Your task to perform on an android device: toggle translation in the chrome app Image 0: 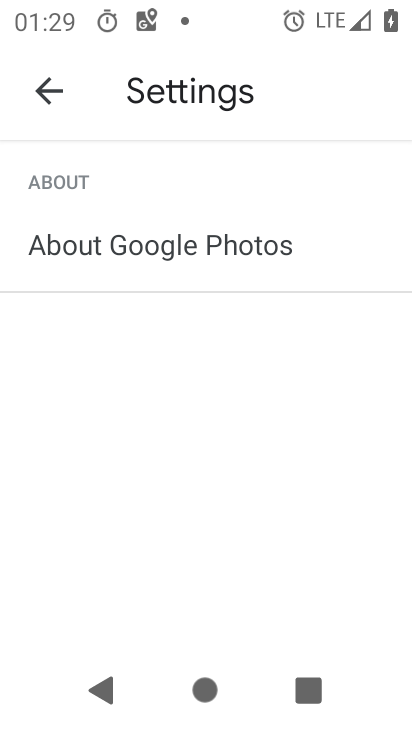
Step 0: press home button
Your task to perform on an android device: toggle translation in the chrome app Image 1: 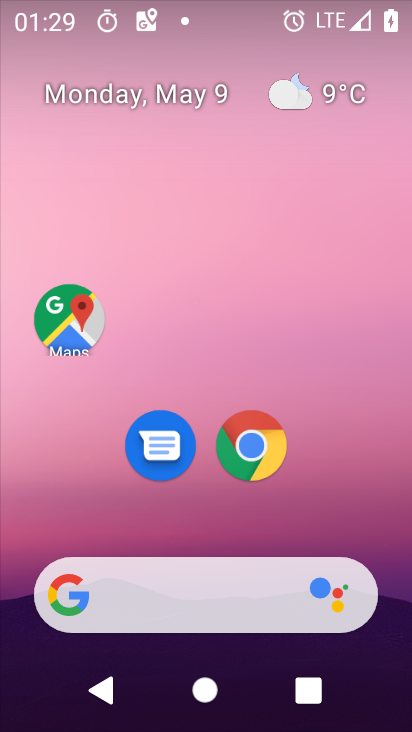
Step 1: click (257, 448)
Your task to perform on an android device: toggle translation in the chrome app Image 2: 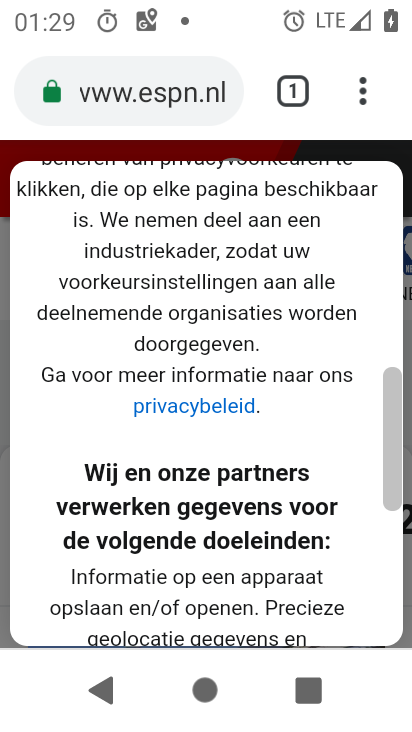
Step 2: drag from (365, 94) to (118, 478)
Your task to perform on an android device: toggle translation in the chrome app Image 3: 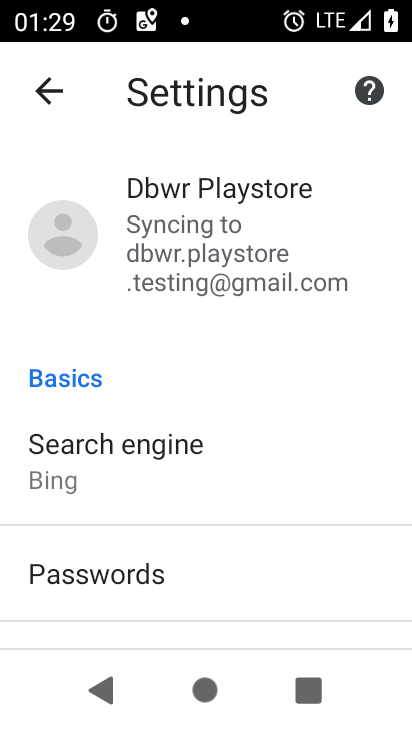
Step 3: drag from (211, 592) to (230, 209)
Your task to perform on an android device: toggle translation in the chrome app Image 4: 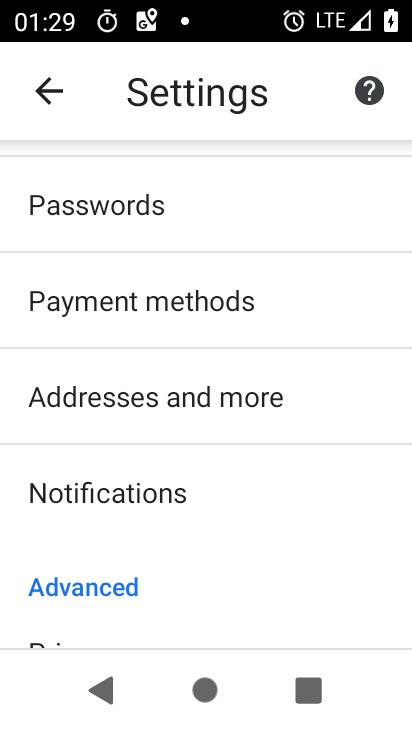
Step 4: drag from (252, 525) to (252, 184)
Your task to perform on an android device: toggle translation in the chrome app Image 5: 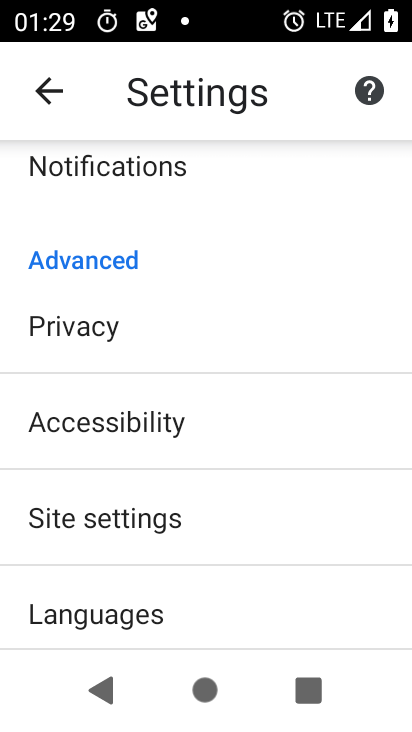
Step 5: click (143, 613)
Your task to perform on an android device: toggle translation in the chrome app Image 6: 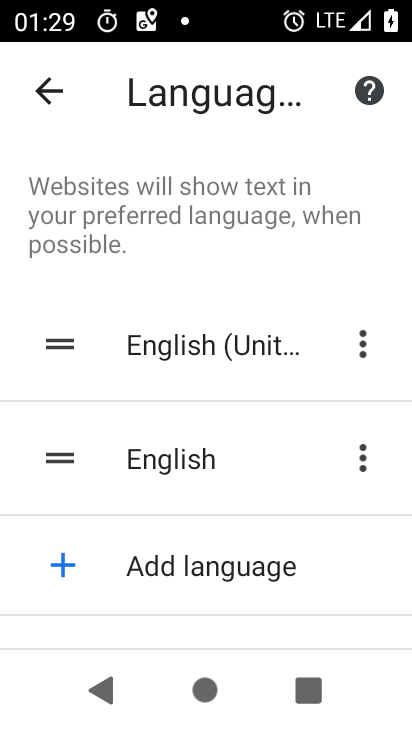
Step 6: drag from (211, 589) to (207, 242)
Your task to perform on an android device: toggle translation in the chrome app Image 7: 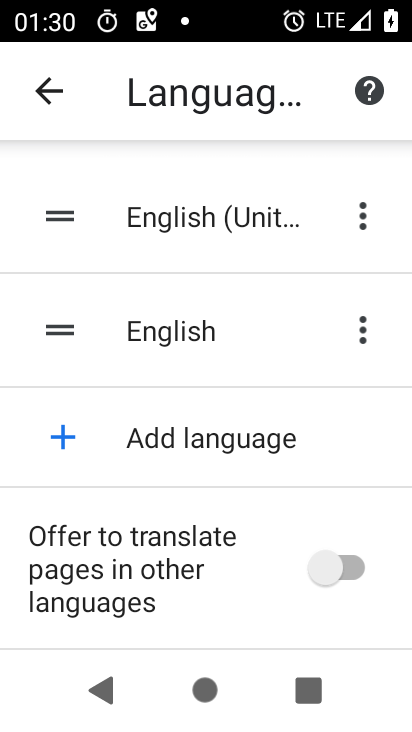
Step 7: click (343, 575)
Your task to perform on an android device: toggle translation in the chrome app Image 8: 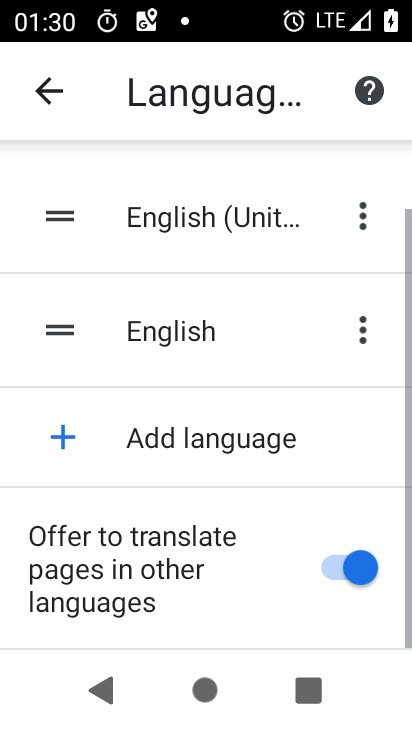
Step 8: task complete